Your task to perform on an android device: Open Google Chrome Image 0: 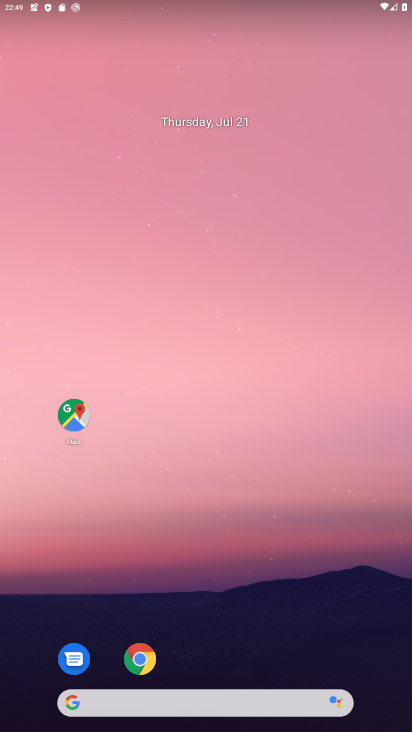
Step 0: drag from (305, 404) to (327, 12)
Your task to perform on an android device: Open Google Chrome Image 1: 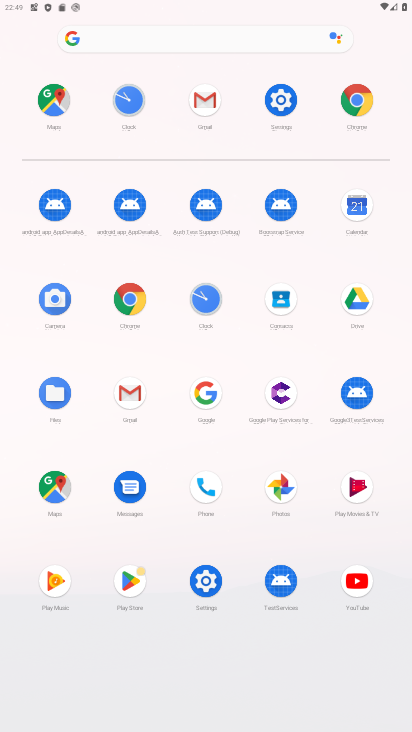
Step 1: click (134, 303)
Your task to perform on an android device: Open Google Chrome Image 2: 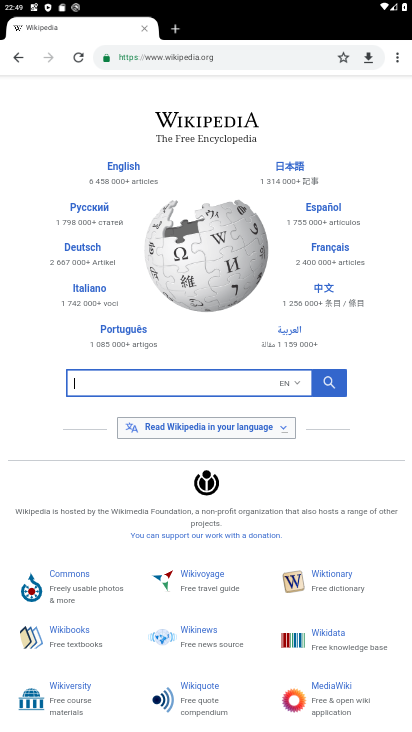
Step 2: click (191, 54)
Your task to perform on an android device: Open Google Chrome Image 3: 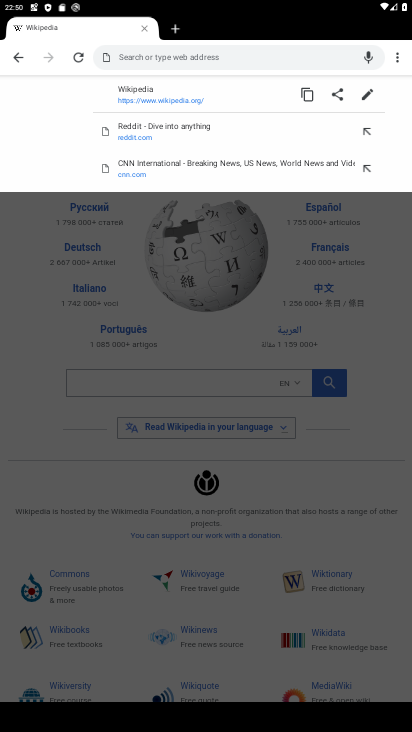
Step 3: task complete